Your task to perform on an android device: Play the new Taylor Swift video on YouTube Image 0: 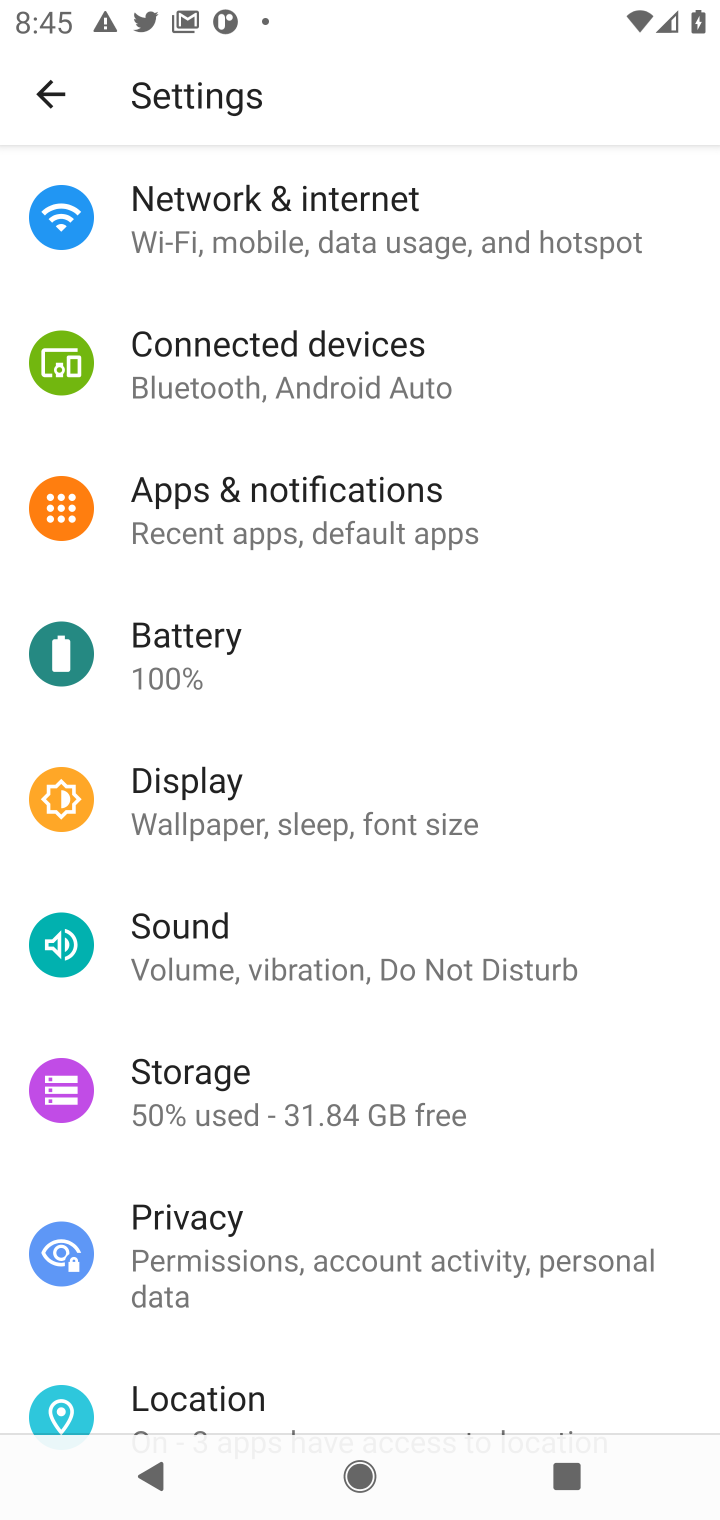
Step 0: press home button
Your task to perform on an android device: Play the new Taylor Swift video on YouTube Image 1: 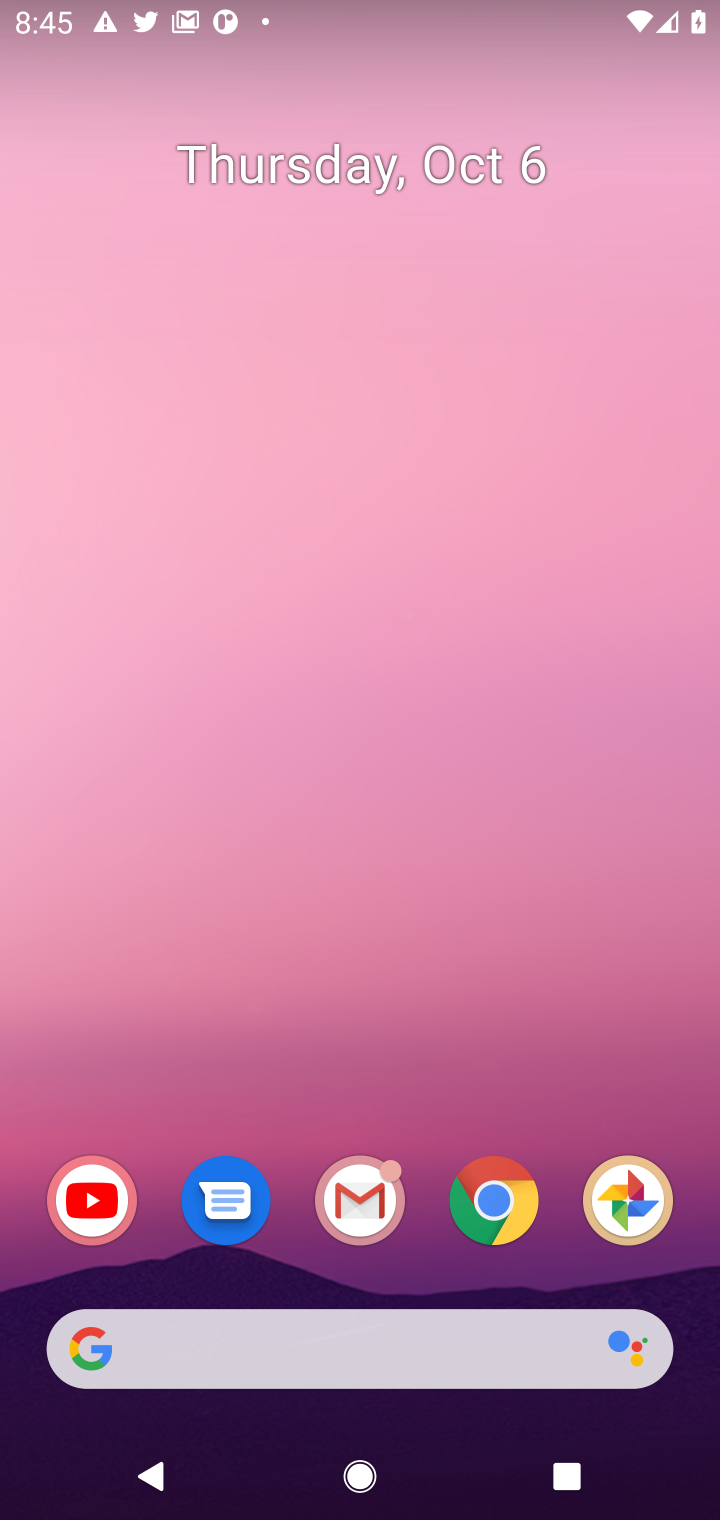
Step 1: click (544, 1190)
Your task to perform on an android device: Play the new Taylor Swift video on YouTube Image 2: 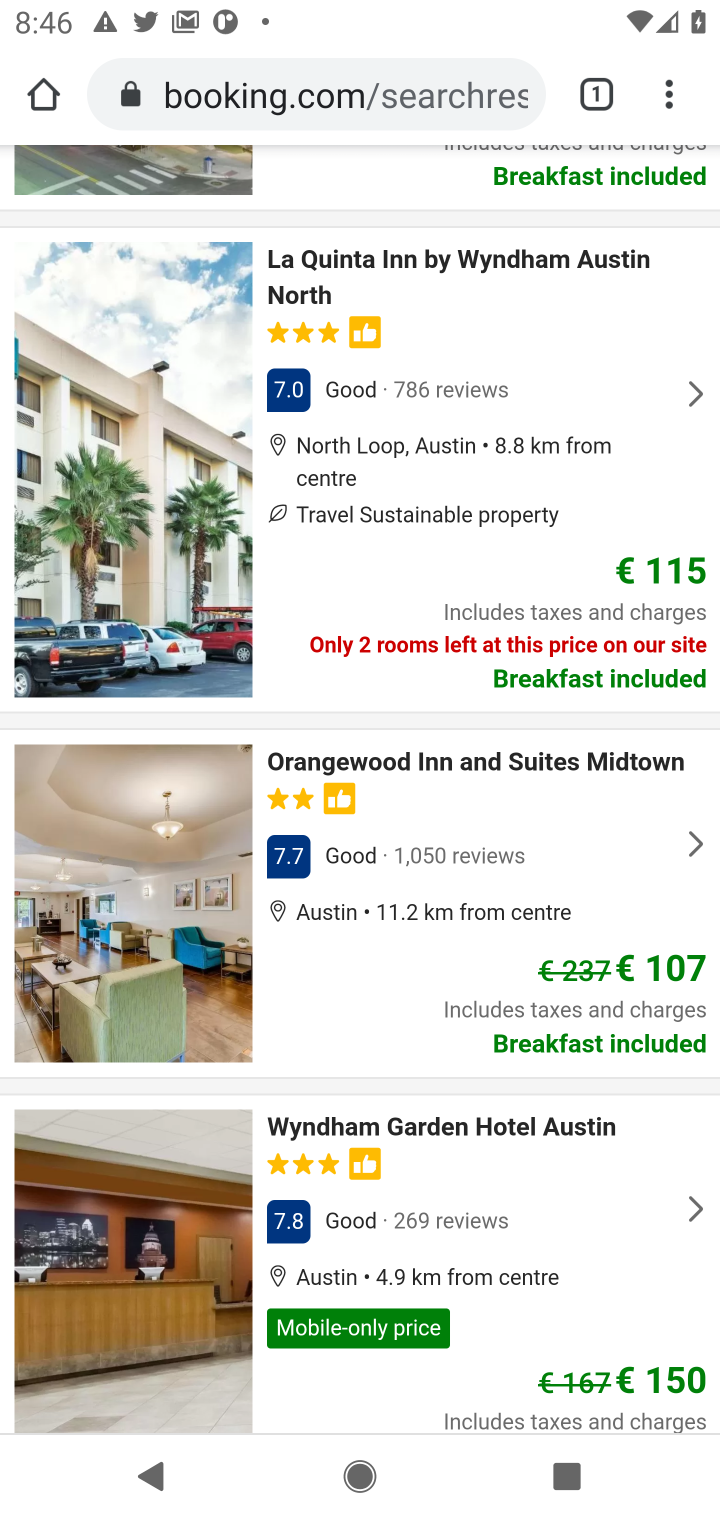
Step 2: click (468, 86)
Your task to perform on an android device: Play the new Taylor Swift video on YouTube Image 3: 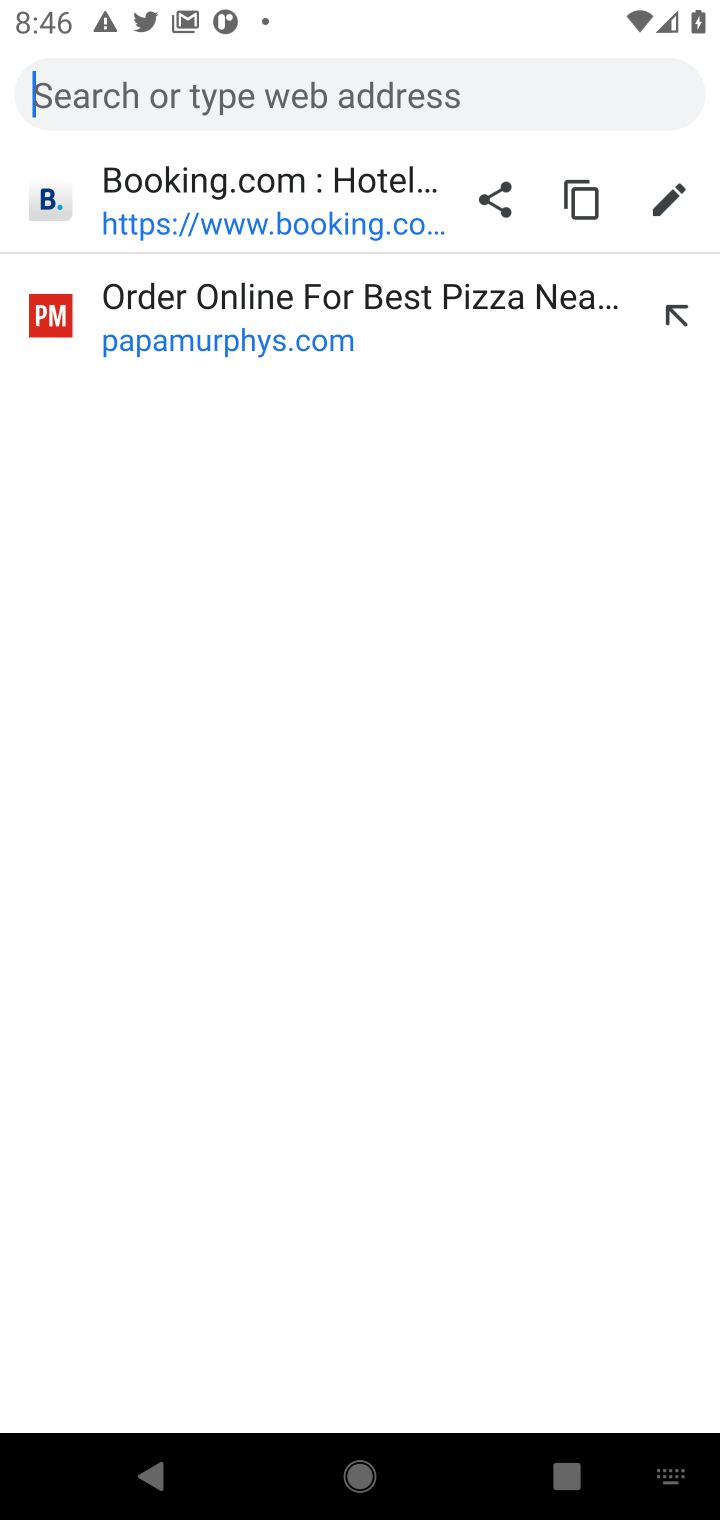
Step 3: type "youtube"
Your task to perform on an android device: Play the new Taylor Swift video on YouTube Image 4: 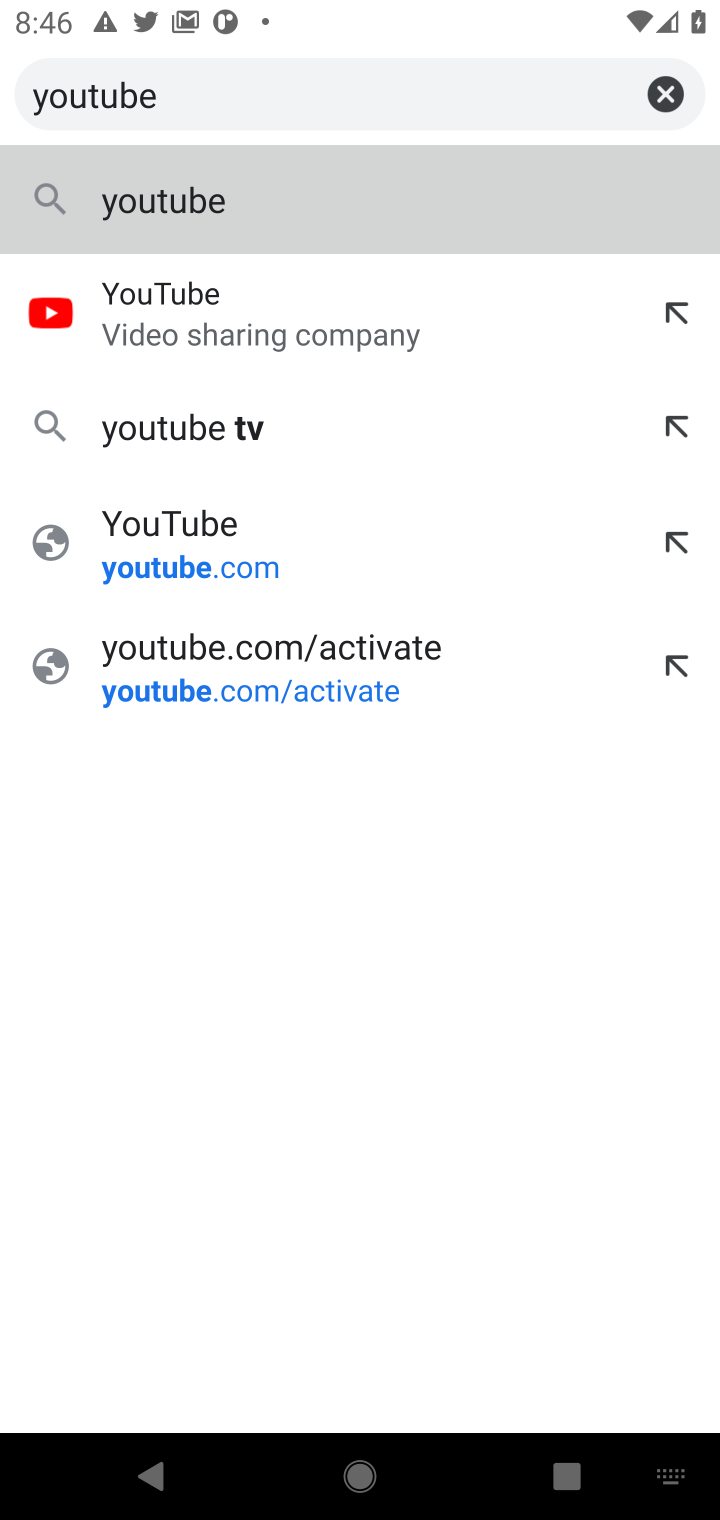
Step 4: click (157, 333)
Your task to perform on an android device: Play the new Taylor Swift video on YouTube Image 5: 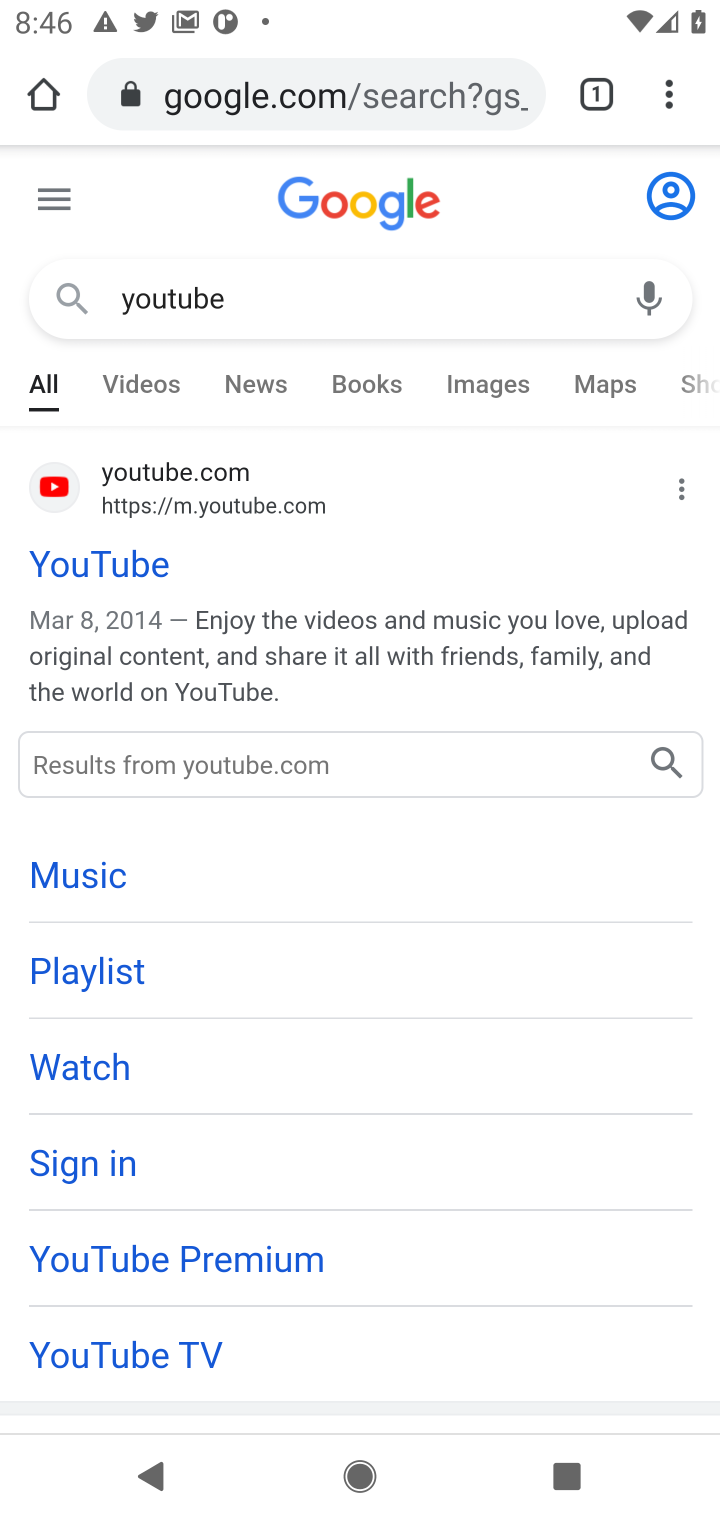
Step 5: click (131, 558)
Your task to perform on an android device: Play the new Taylor Swift video on YouTube Image 6: 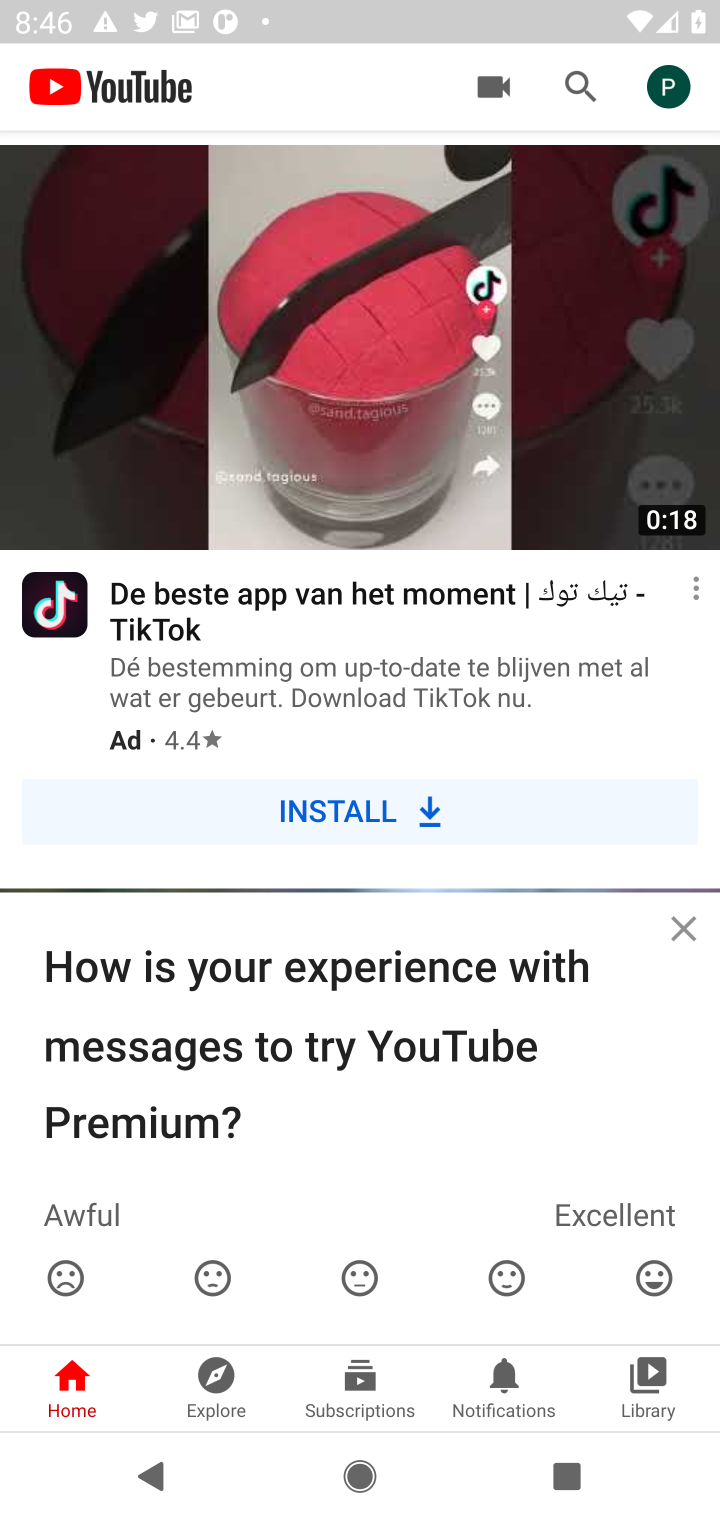
Step 6: click (586, 83)
Your task to perform on an android device: Play the new Taylor Swift video on YouTube Image 7: 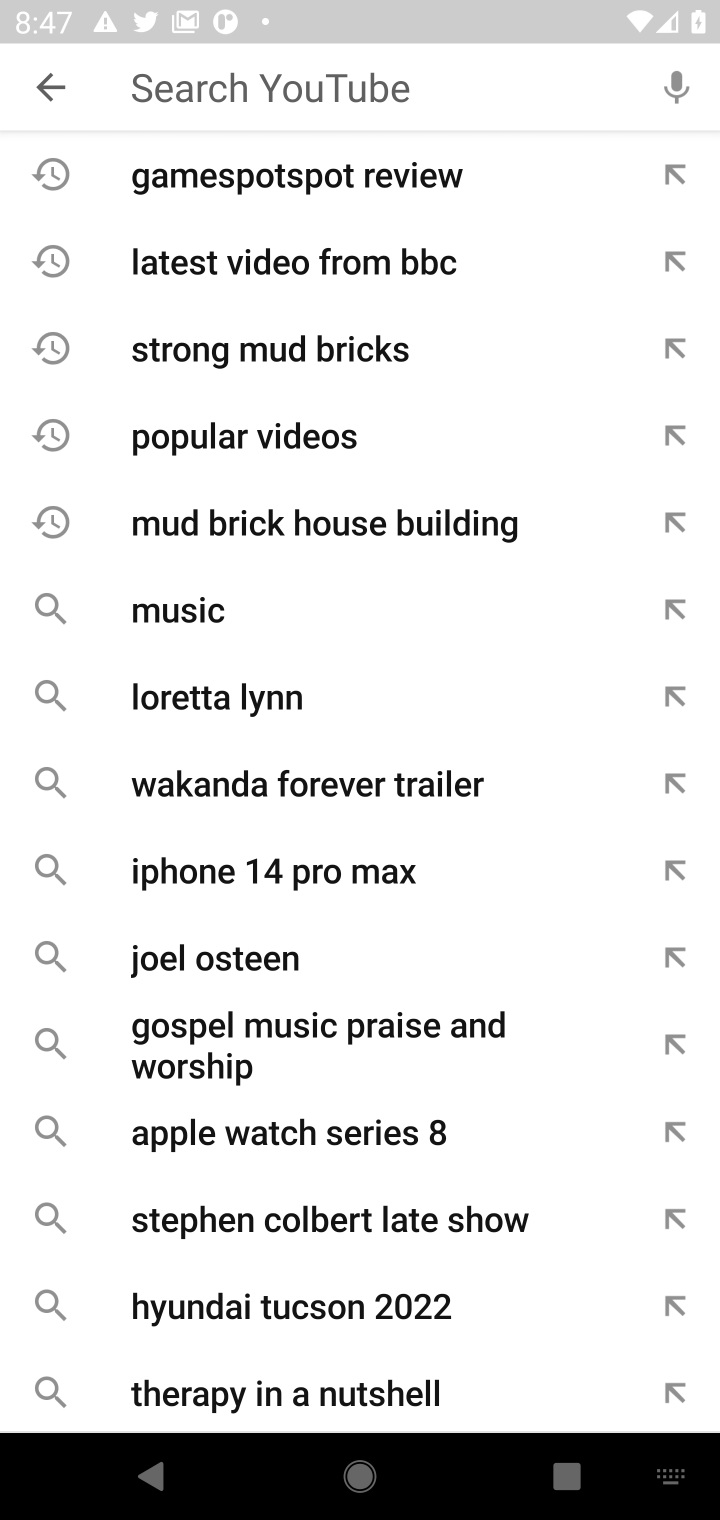
Step 7: type "new taylor swift video"
Your task to perform on an android device: Play the new Taylor Swift video on YouTube Image 8: 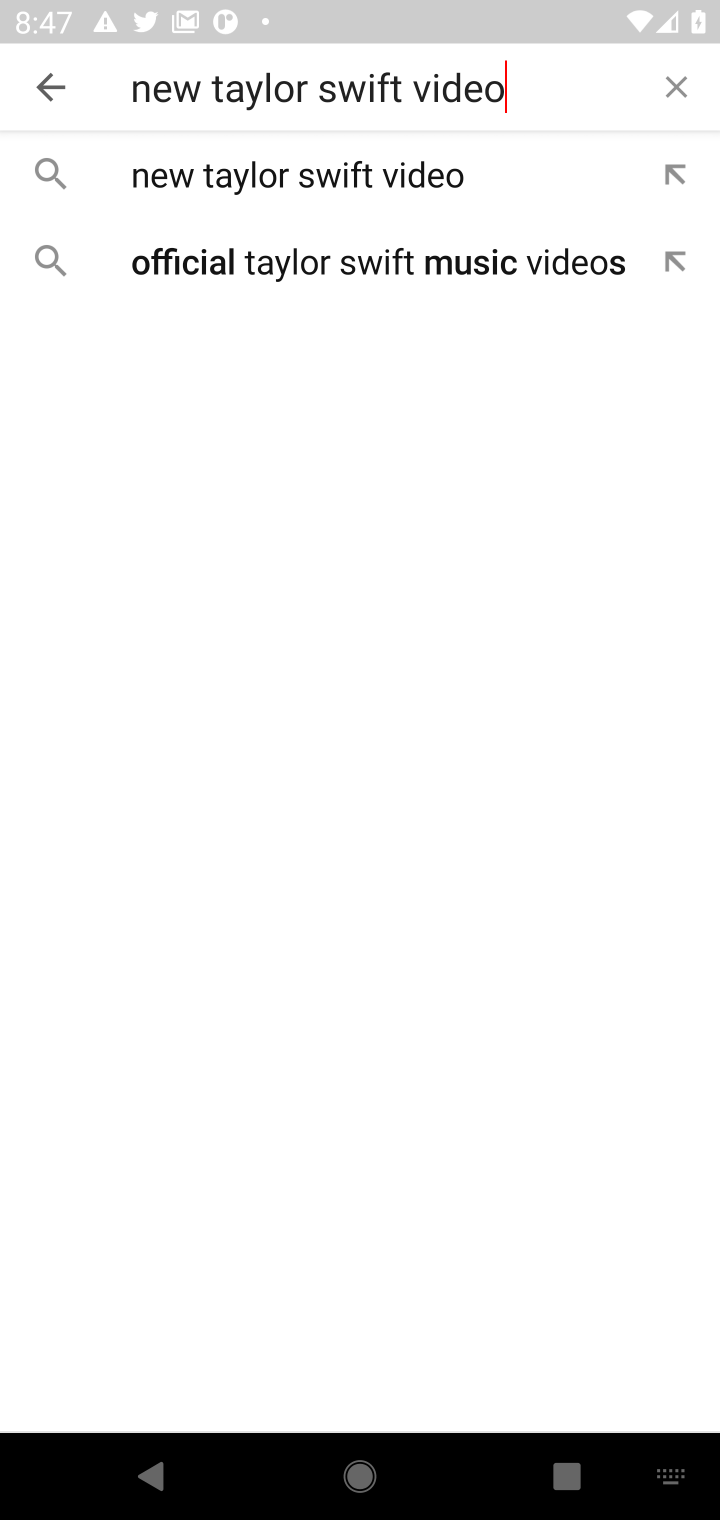
Step 8: type ""
Your task to perform on an android device: Play the new Taylor Swift video on YouTube Image 9: 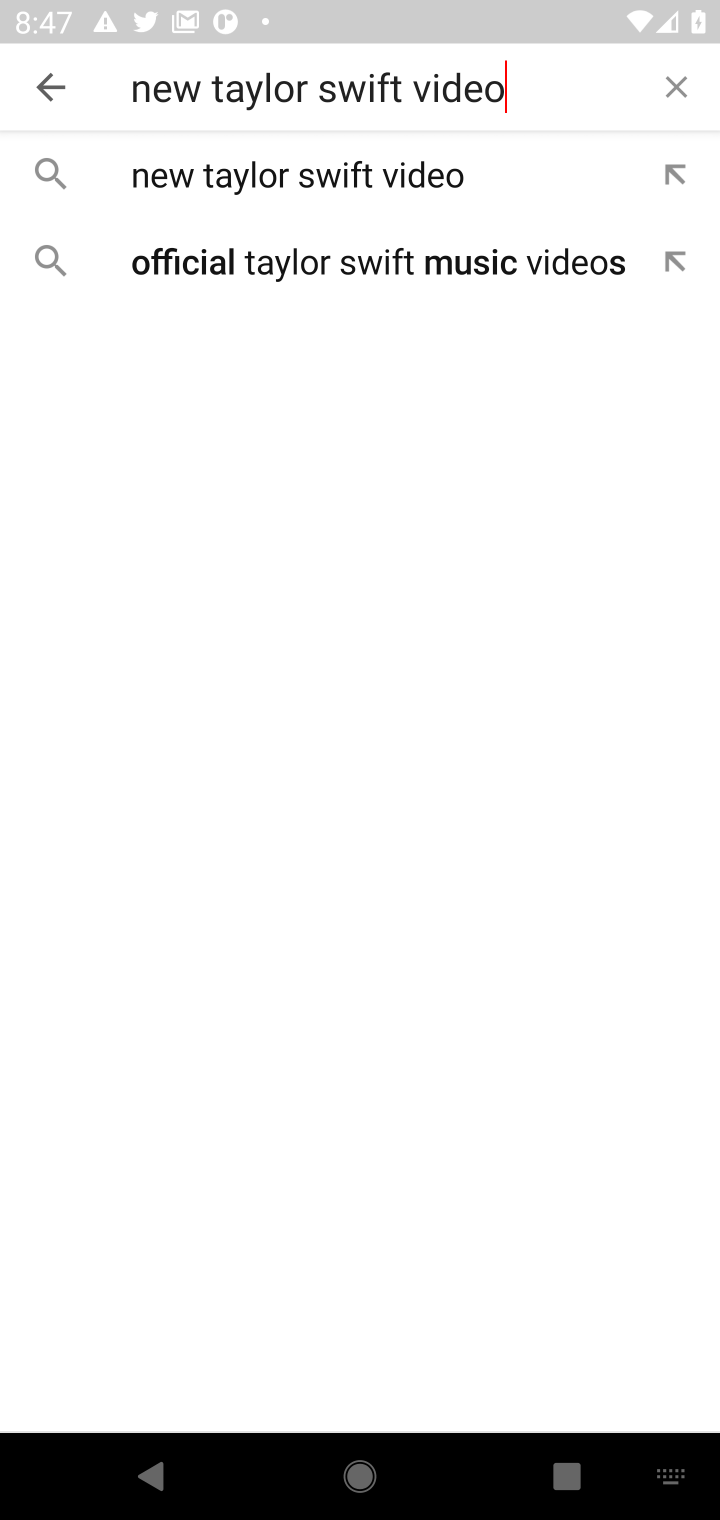
Step 9: click (400, 160)
Your task to perform on an android device: Play the new Taylor Swift video on YouTube Image 10: 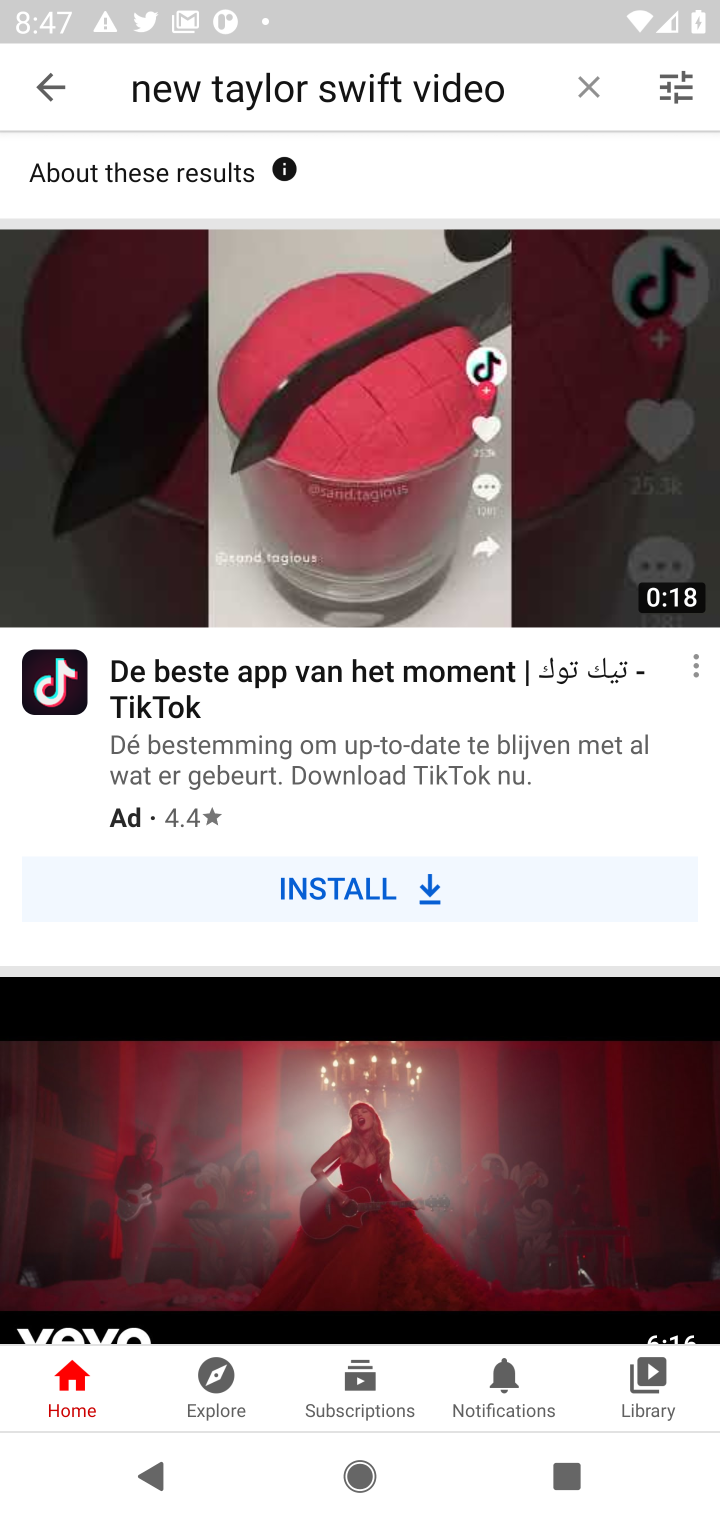
Step 10: drag from (582, 846) to (562, 449)
Your task to perform on an android device: Play the new Taylor Swift video on YouTube Image 11: 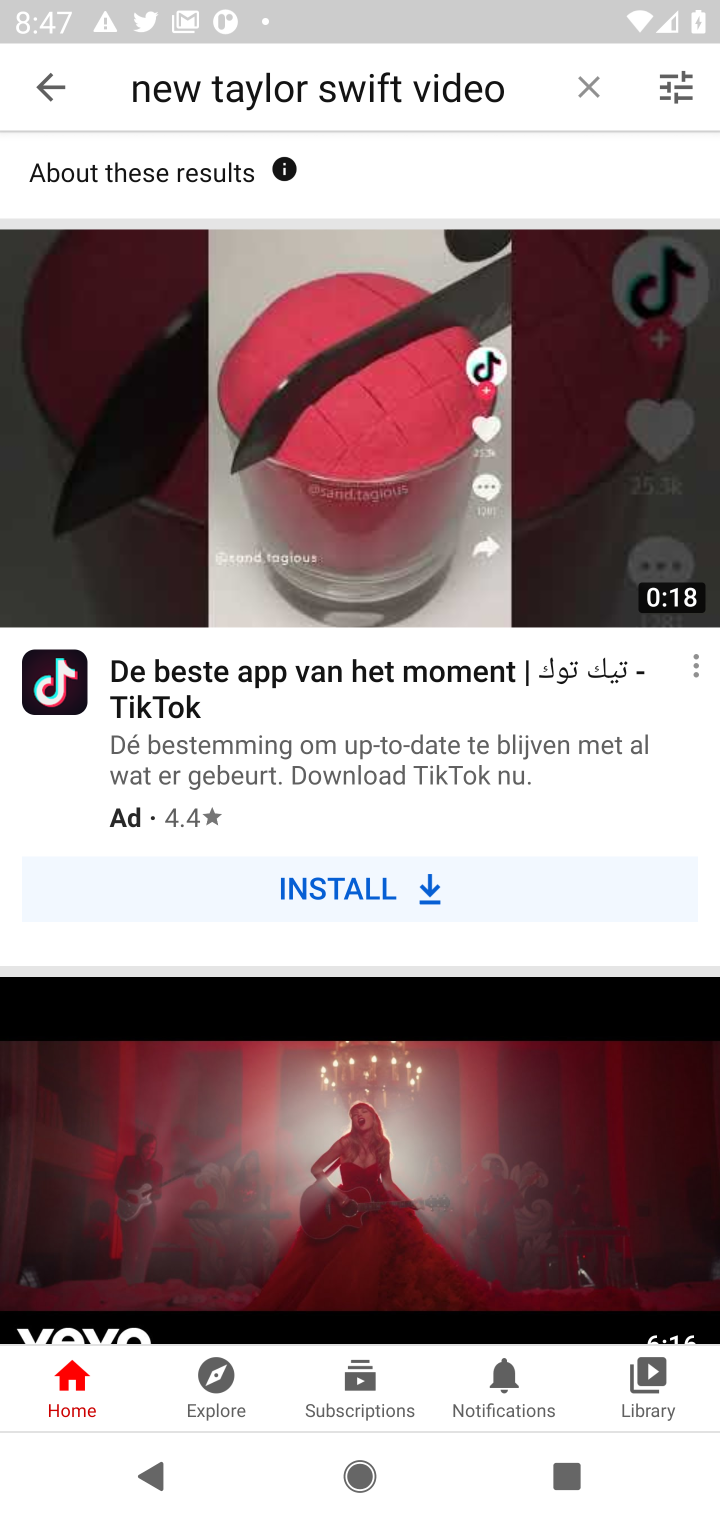
Step 11: drag from (611, 1242) to (648, 703)
Your task to perform on an android device: Play the new Taylor Swift video on YouTube Image 12: 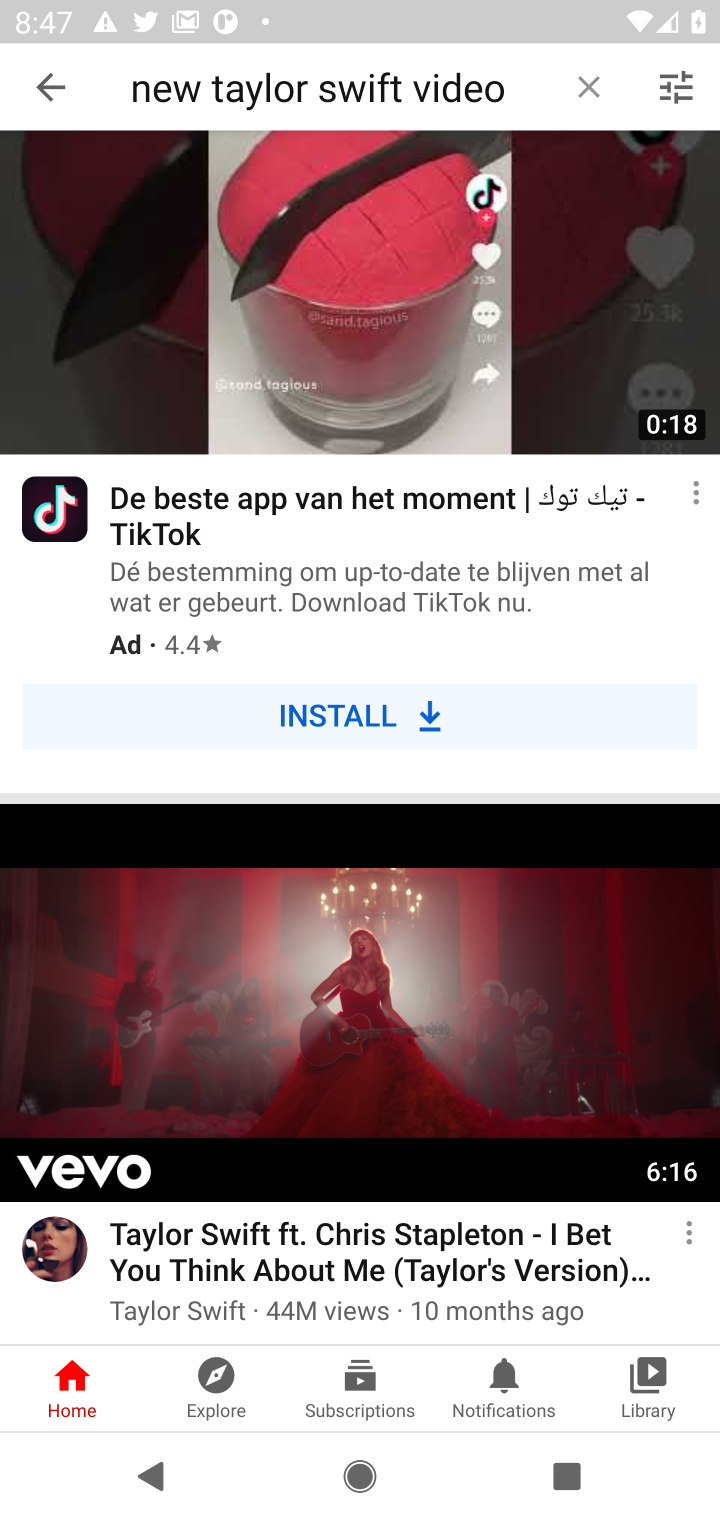
Step 12: click (714, 903)
Your task to perform on an android device: Play the new Taylor Swift video on YouTube Image 13: 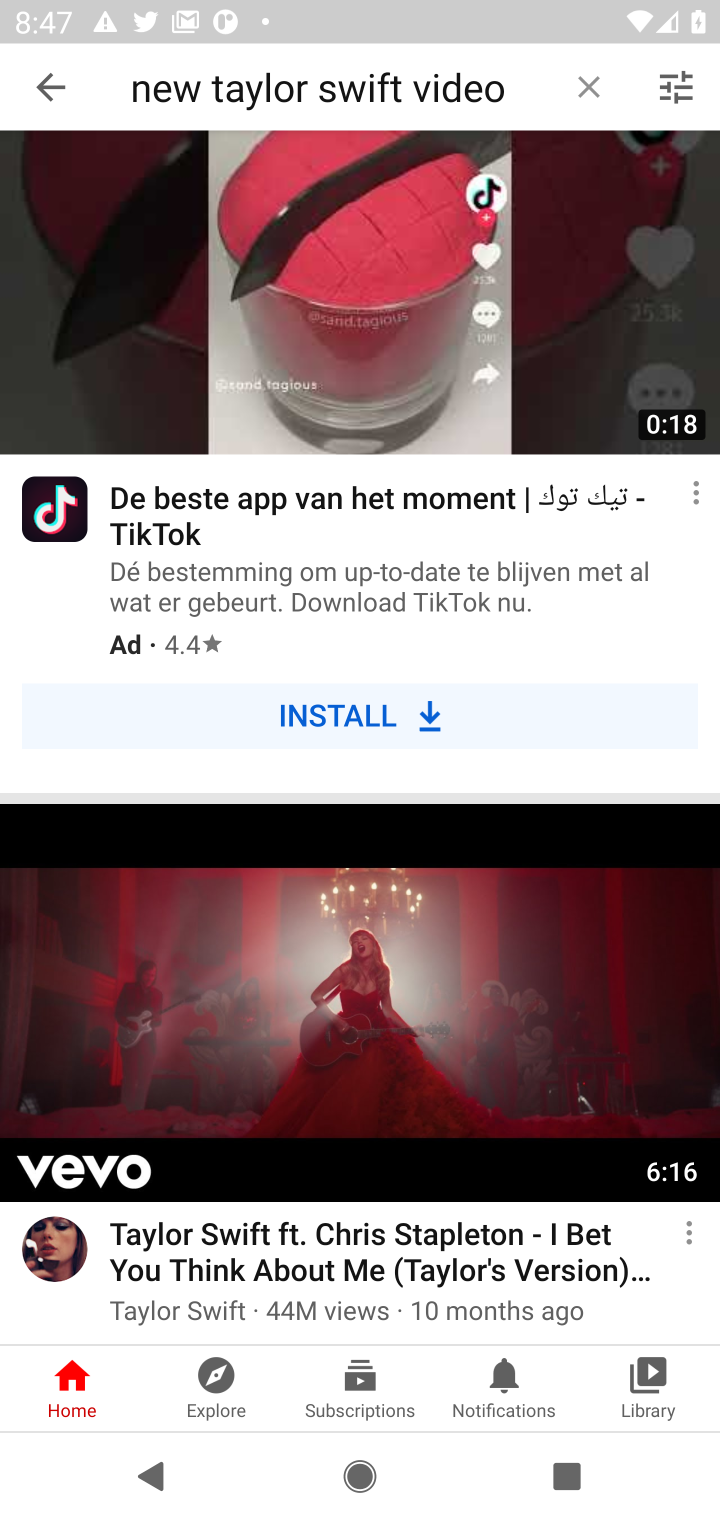
Step 13: drag from (31, 881) to (41, 555)
Your task to perform on an android device: Play the new Taylor Swift video on YouTube Image 14: 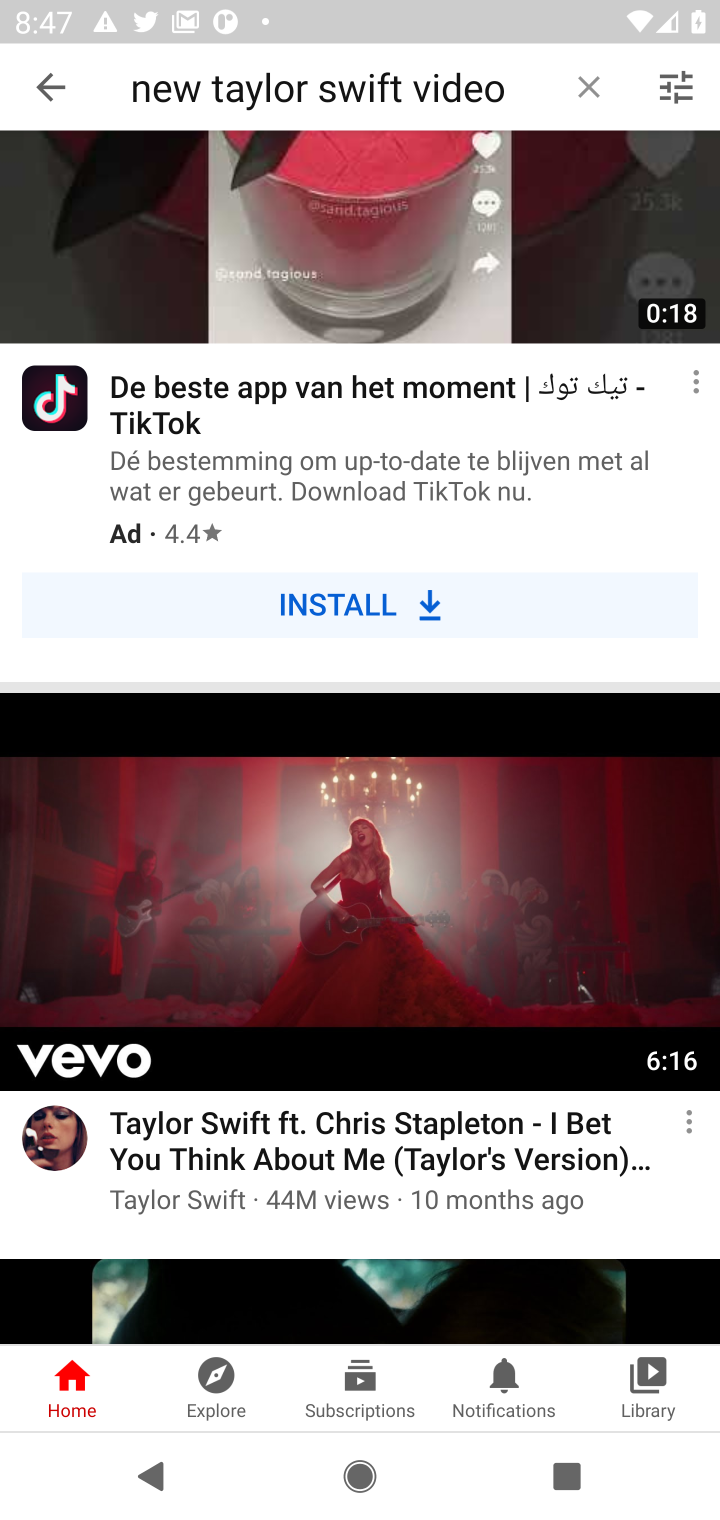
Step 14: drag from (28, 1149) to (140, 570)
Your task to perform on an android device: Play the new Taylor Swift video on YouTube Image 15: 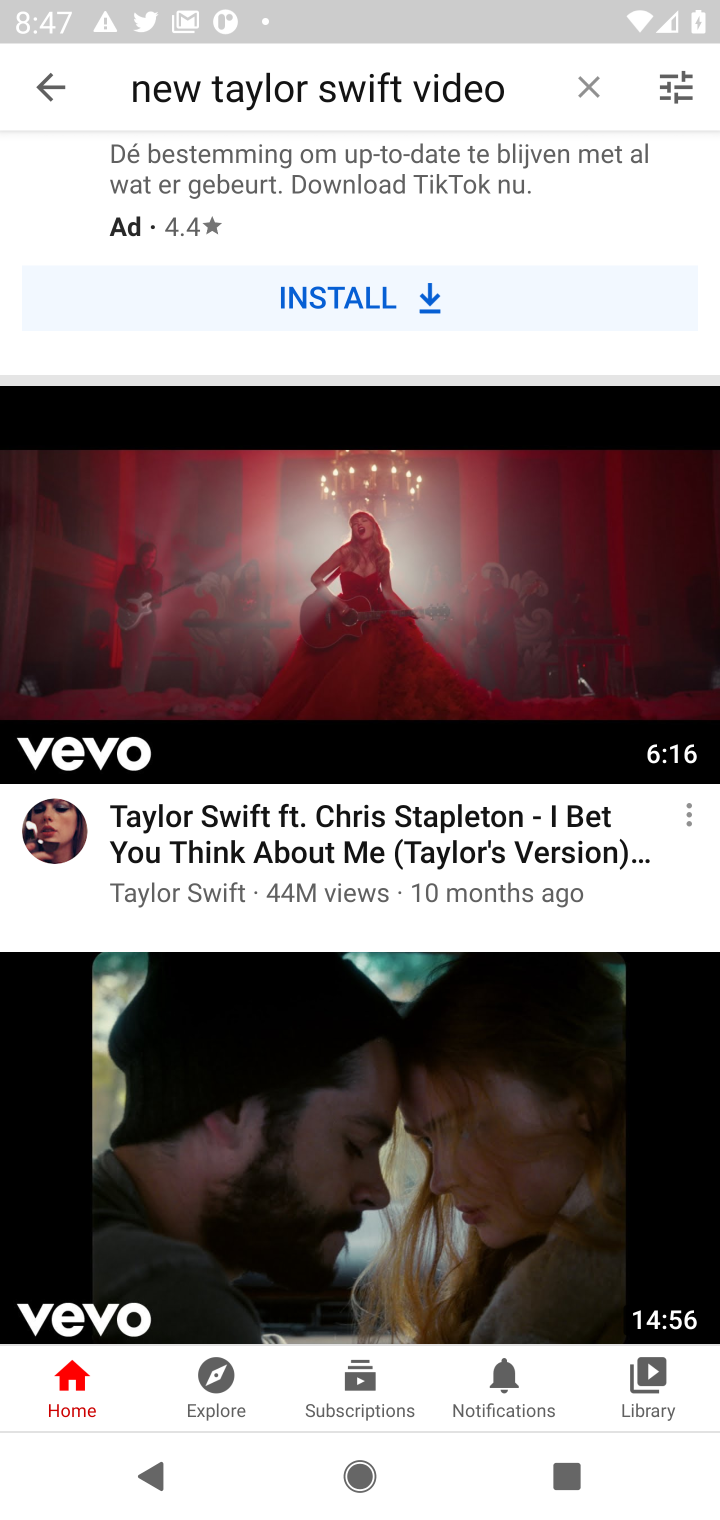
Step 15: drag from (615, 952) to (662, 461)
Your task to perform on an android device: Play the new Taylor Swift video on YouTube Image 16: 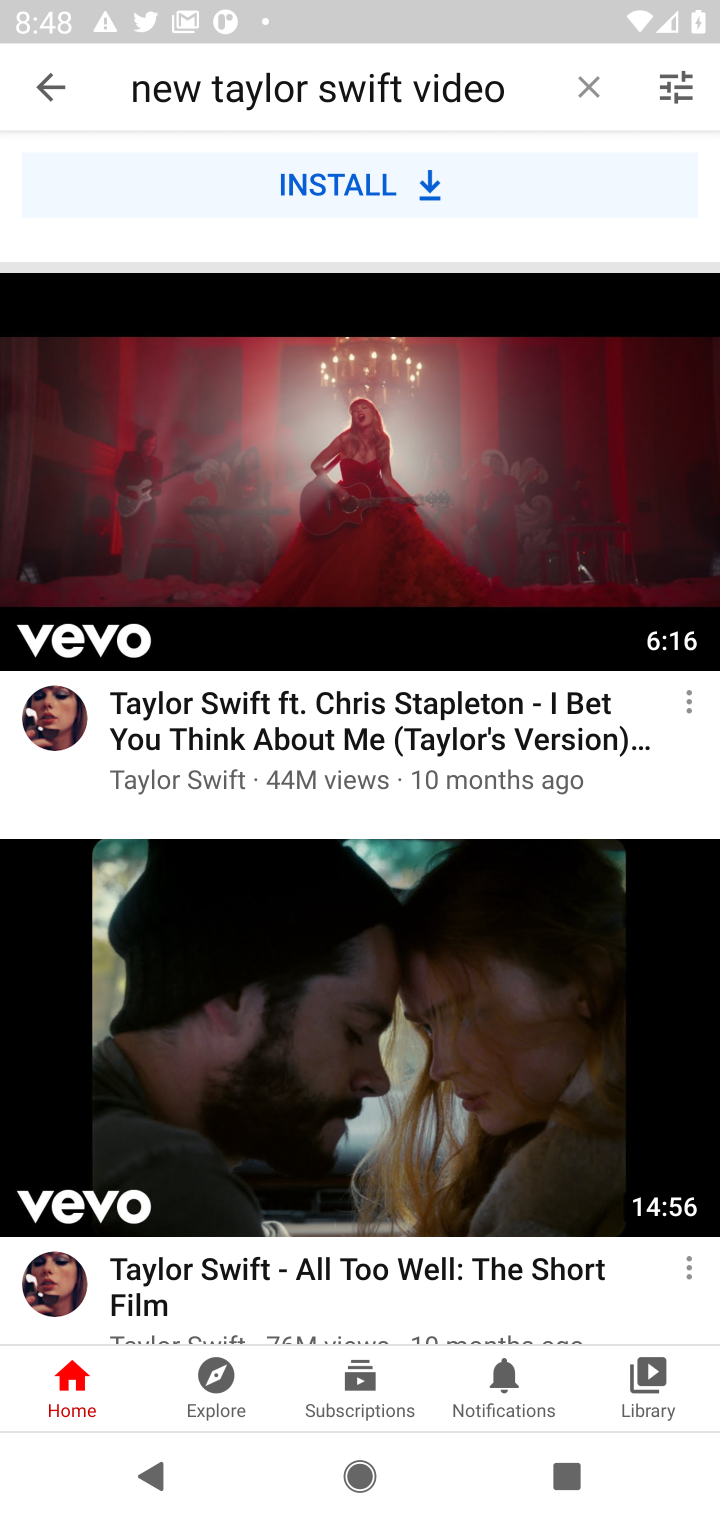
Step 16: drag from (583, 948) to (661, 401)
Your task to perform on an android device: Play the new Taylor Swift video on YouTube Image 17: 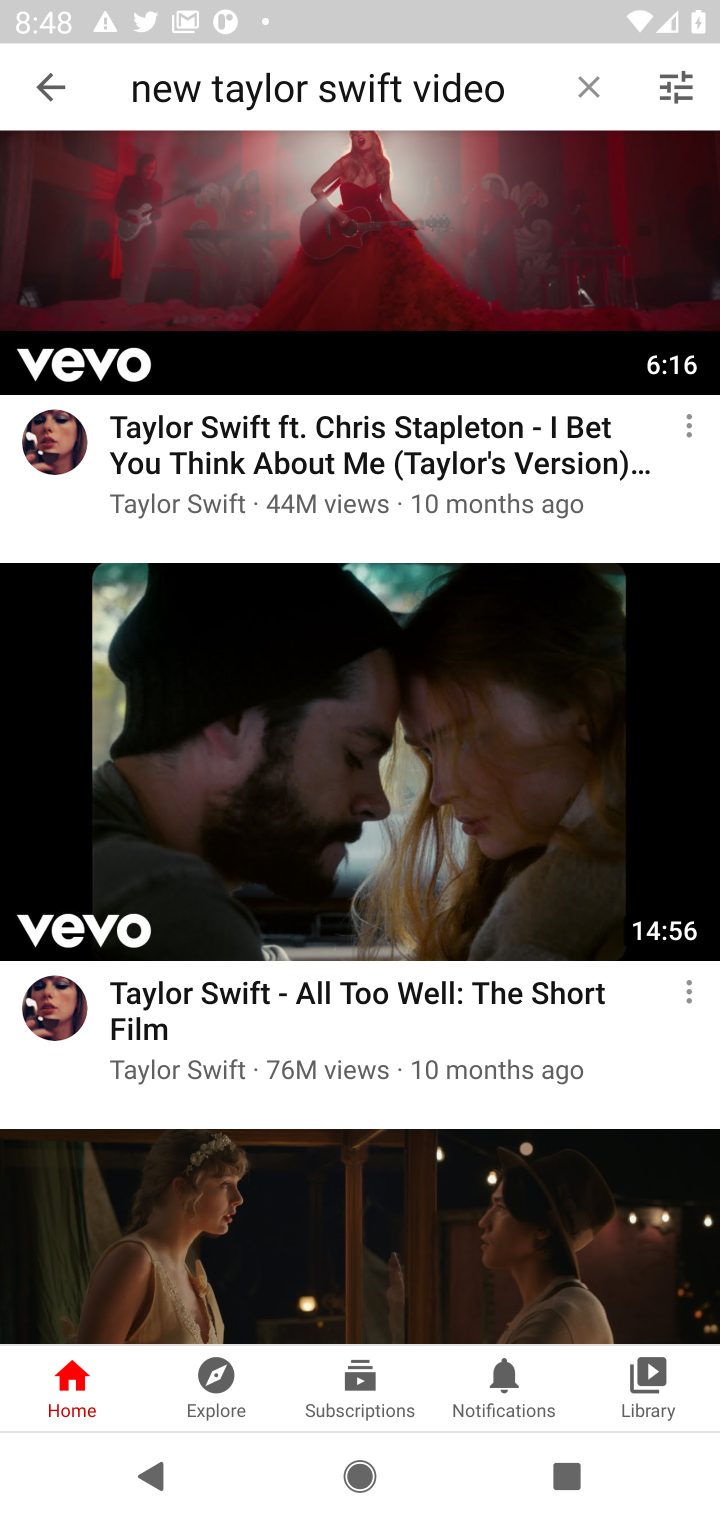
Step 17: drag from (516, 1128) to (650, 412)
Your task to perform on an android device: Play the new Taylor Swift video on YouTube Image 18: 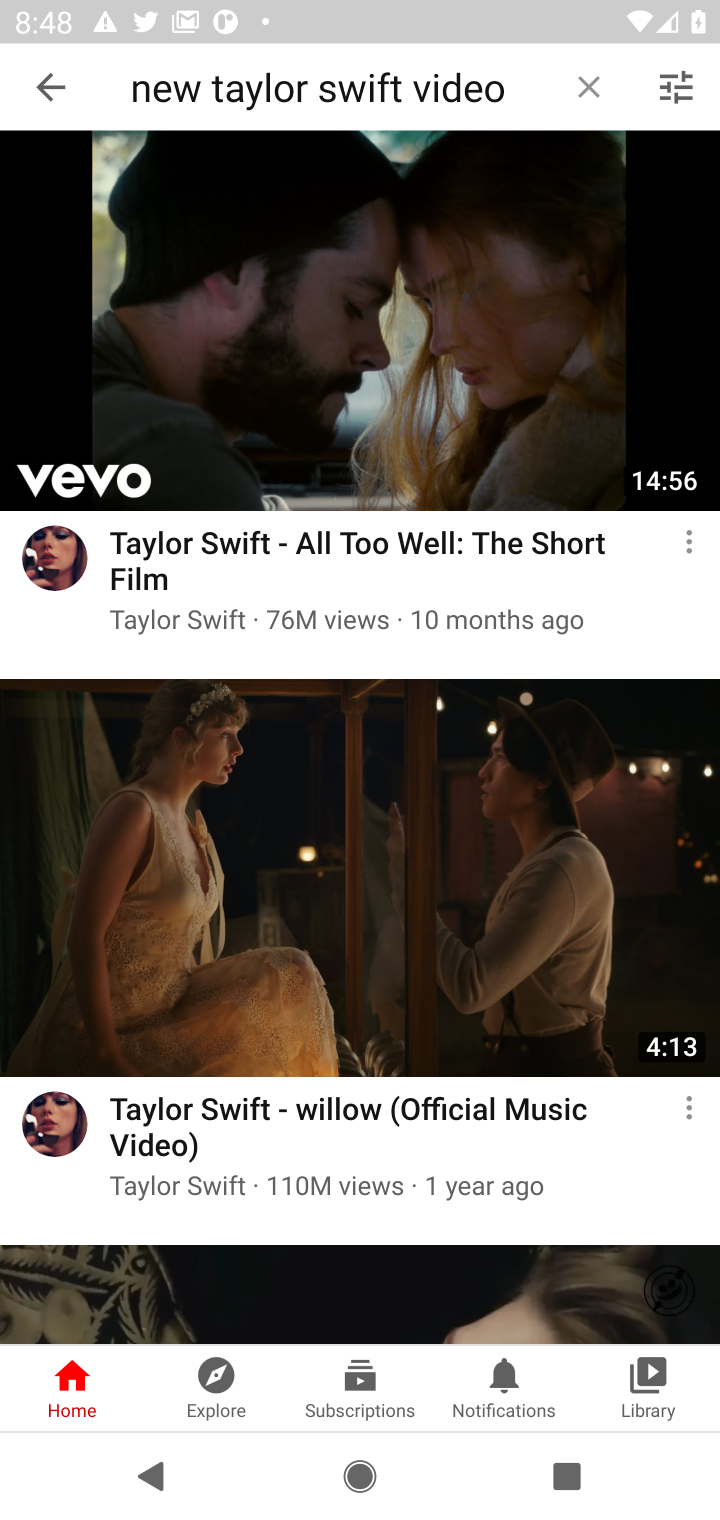
Step 18: drag from (630, 754) to (630, 450)
Your task to perform on an android device: Play the new Taylor Swift video on YouTube Image 19: 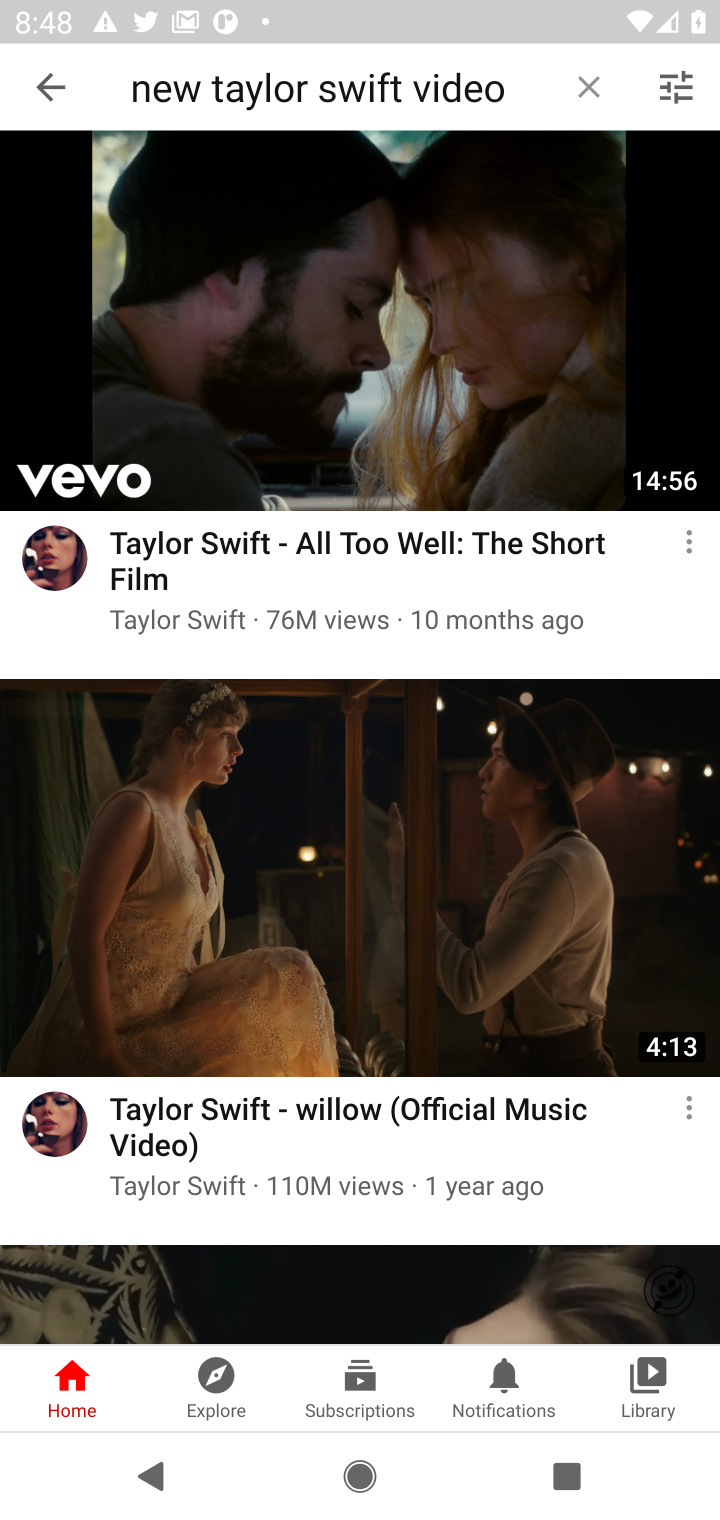
Step 19: drag from (366, 1034) to (405, 544)
Your task to perform on an android device: Play the new Taylor Swift video on YouTube Image 20: 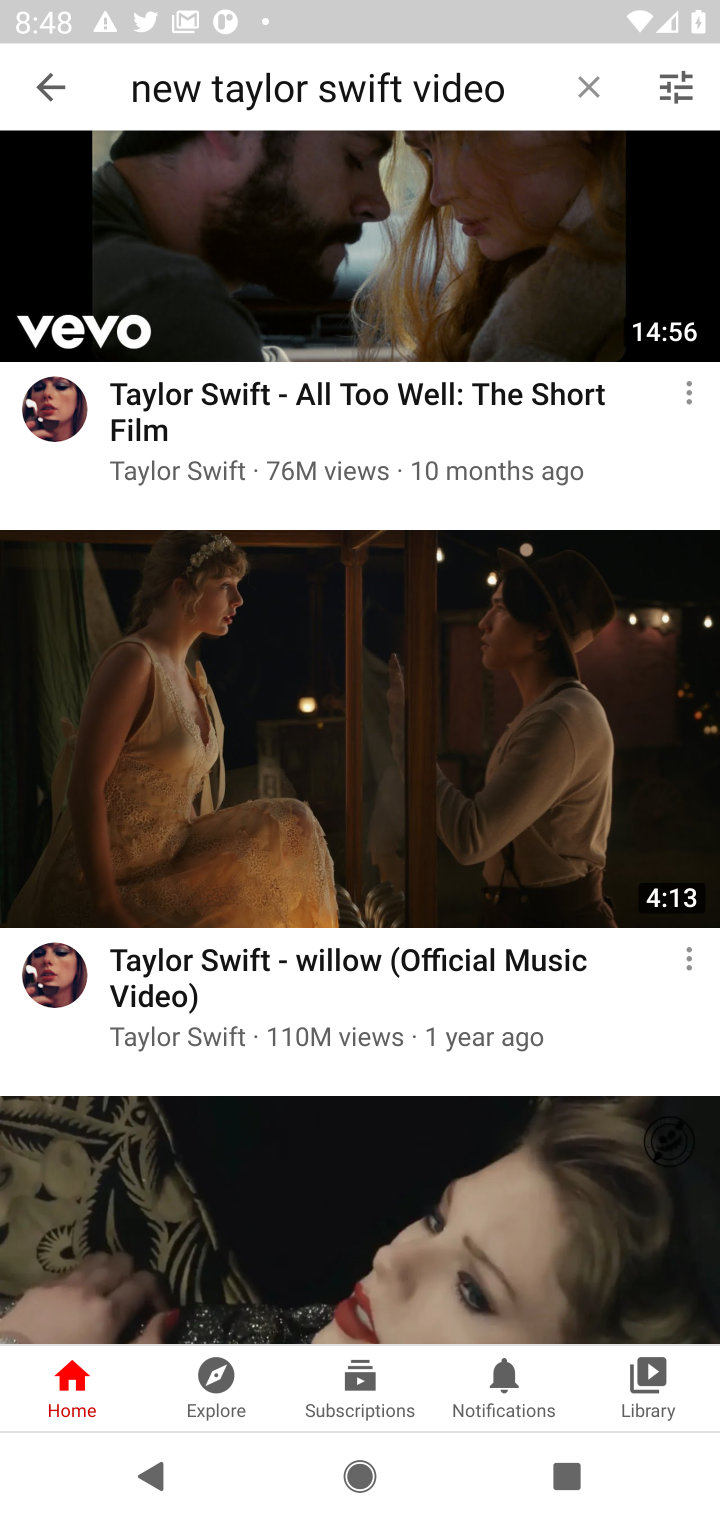
Step 20: drag from (343, 746) to (374, 583)
Your task to perform on an android device: Play the new Taylor Swift video on YouTube Image 21: 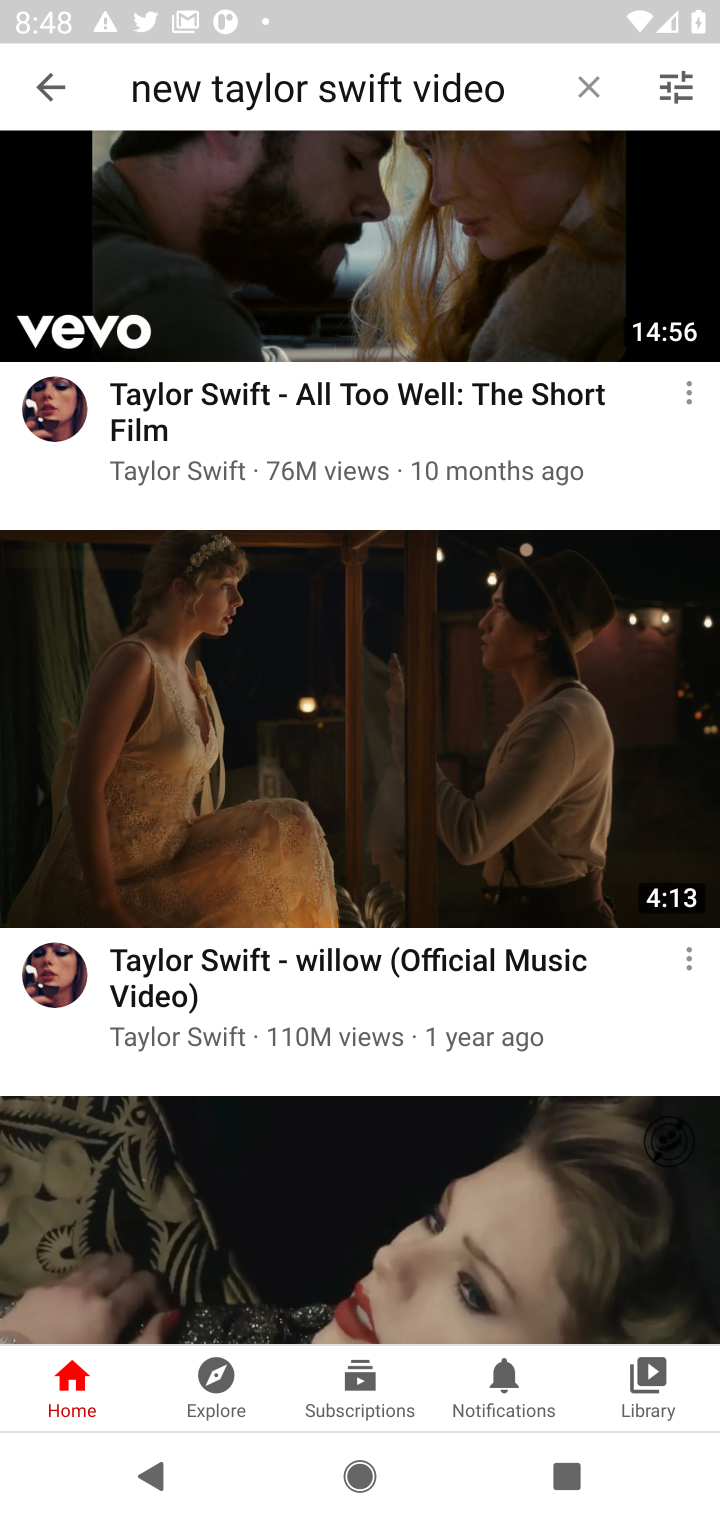
Step 21: drag from (461, 854) to (508, 580)
Your task to perform on an android device: Play the new Taylor Swift video on YouTube Image 22: 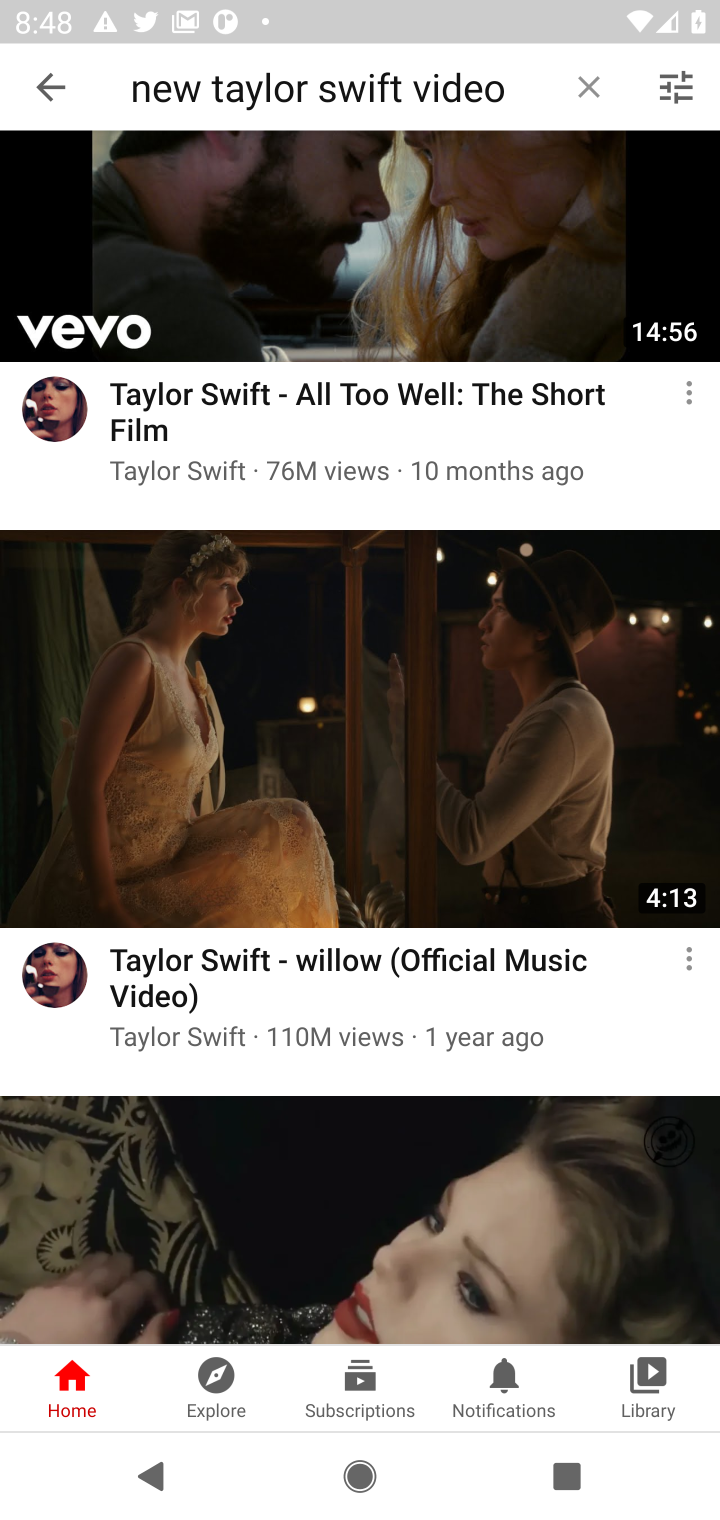
Step 22: drag from (343, 1147) to (436, 792)
Your task to perform on an android device: Play the new Taylor Swift video on YouTube Image 23: 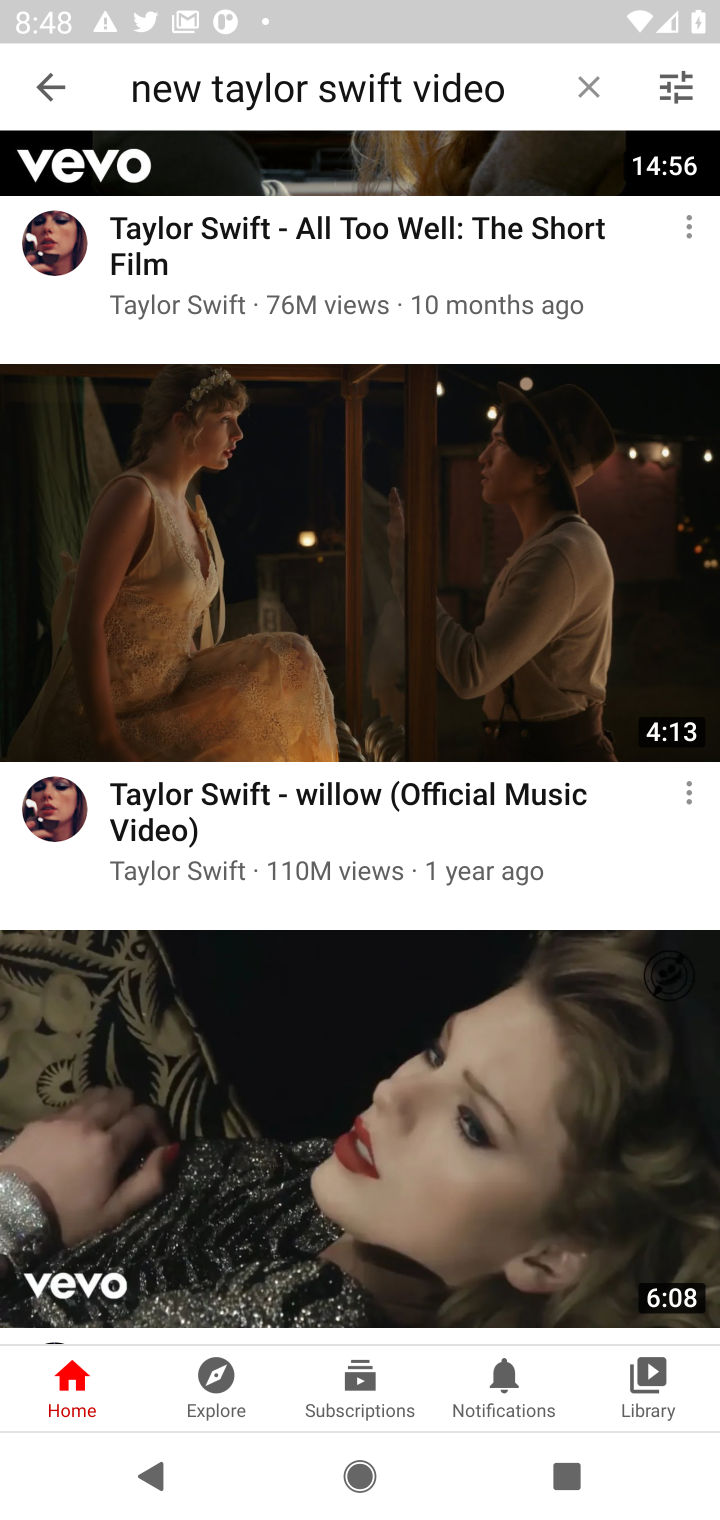
Step 23: drag from (416, 1148) to (445, 457)
Your task to perform on an android device: Play the new Taylor Swift video on YouTube Image 24: 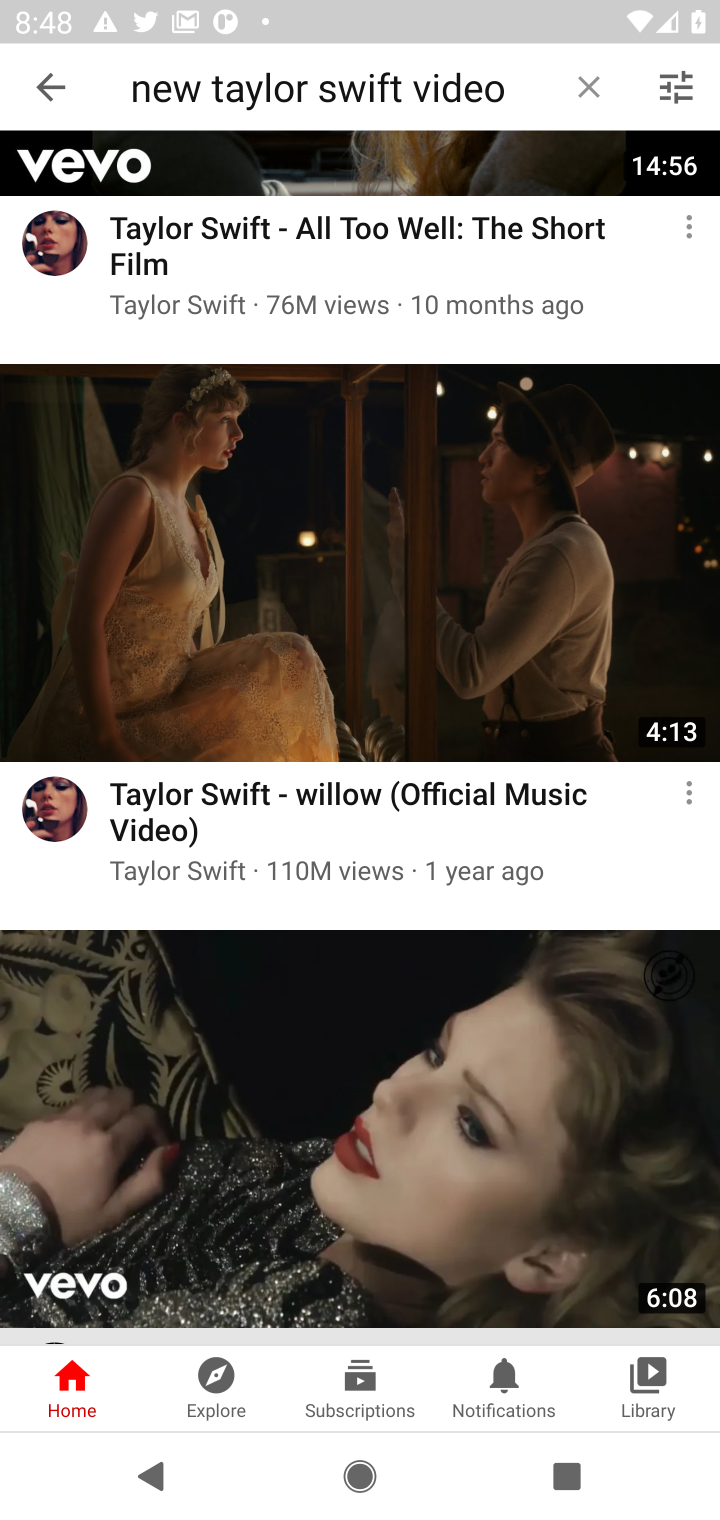
Step 24: drag from (278, 1163) to (546, 420)
Your task to perform on an android device: Play the new Taylor Swift video on YouTube Image 25: 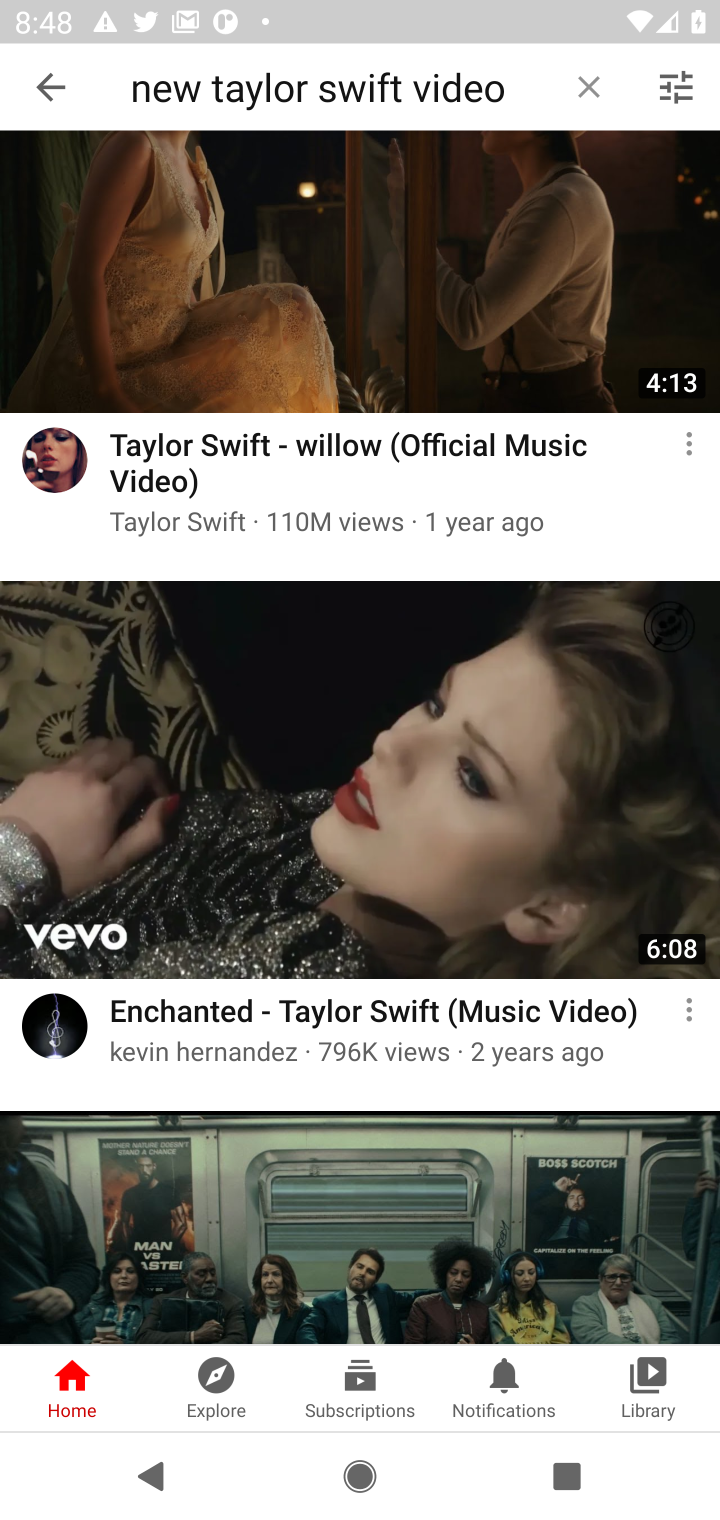
Step 25: drag from (602, 644) to (641, 391)
Your task to perform on an android device: Play the new Taylor Swift video on YouTube Image 26: 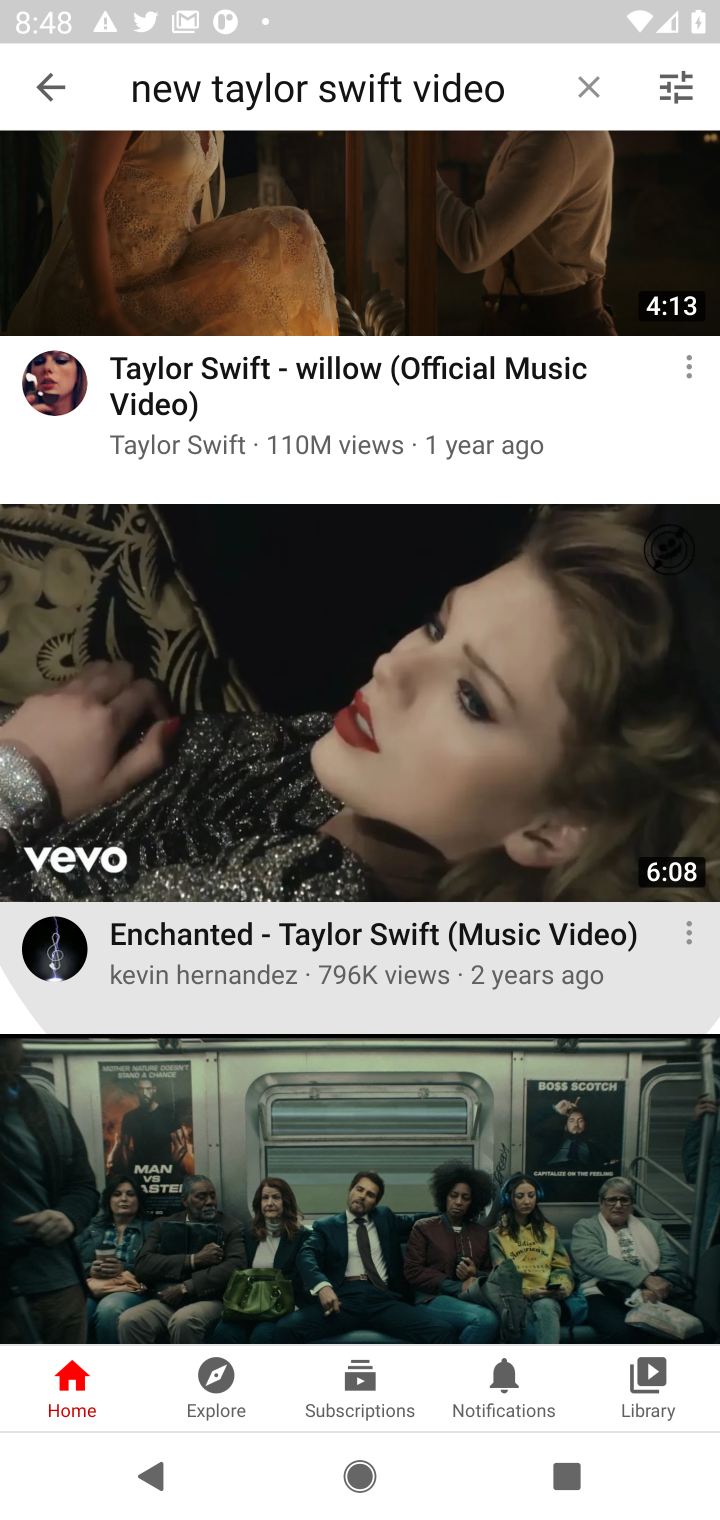
Step 26: drag from (432, 1000) to (558, 480)
Your task to perform on an android device: Play the new Taylor Swift video on YouTube Image 27: 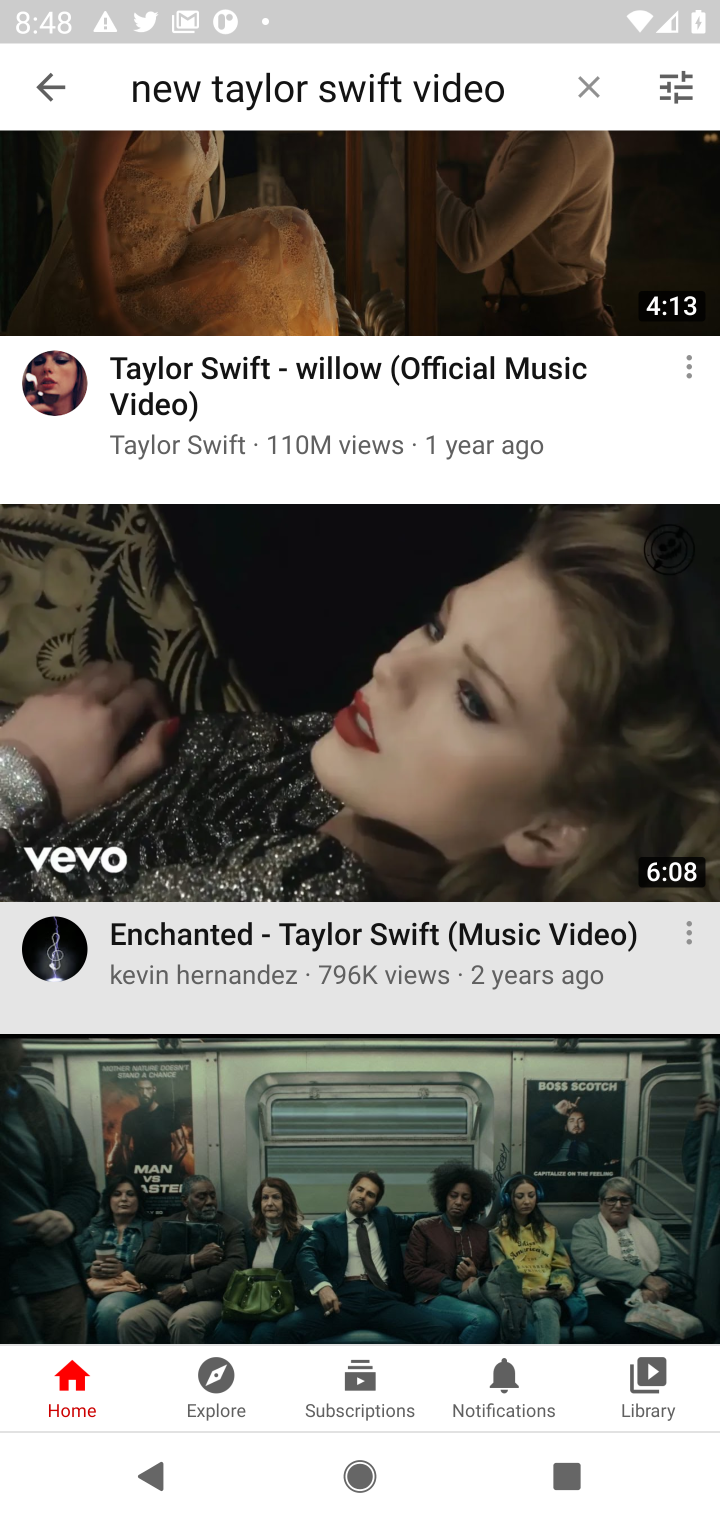
Step 27: click (297, 276)
Your task to perform on an android device: Play the new Taylor Swift video on YouTube Image 28: 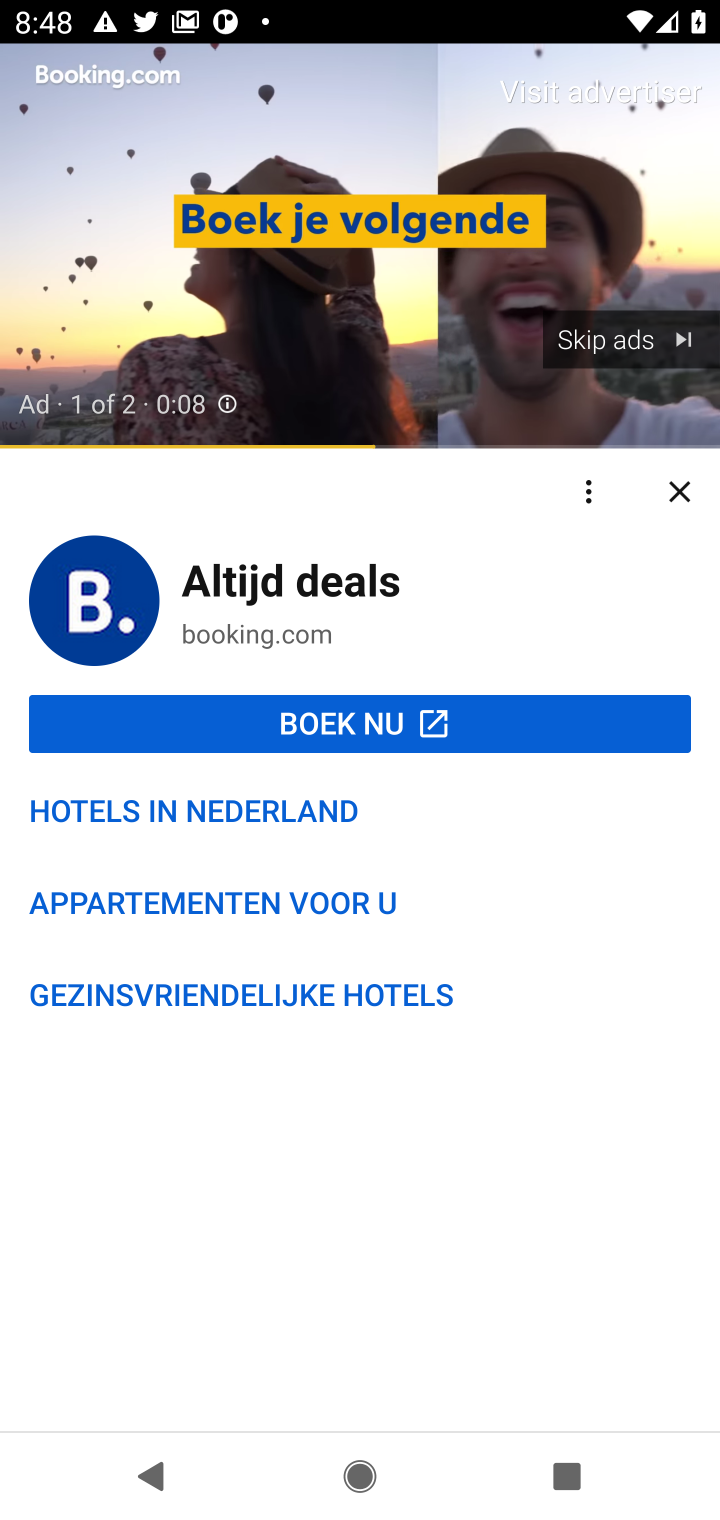
Step 28: click (592, 340)
Your task to perform on an android device: Play the new Taylor Swift video on YouTube Image 29: 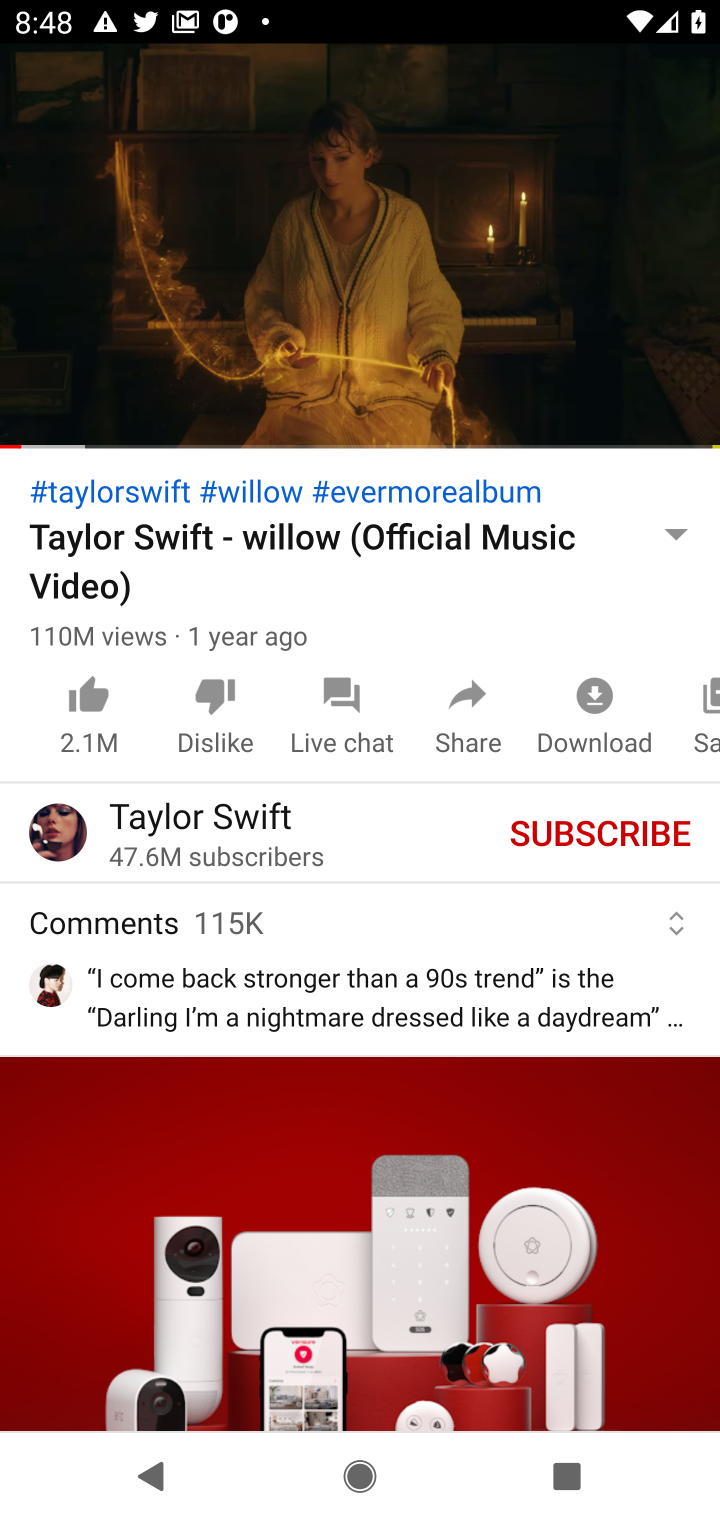
Step 29: task complete